Your task to perform on an android device: turn on javascript in the chrome app Image 0: 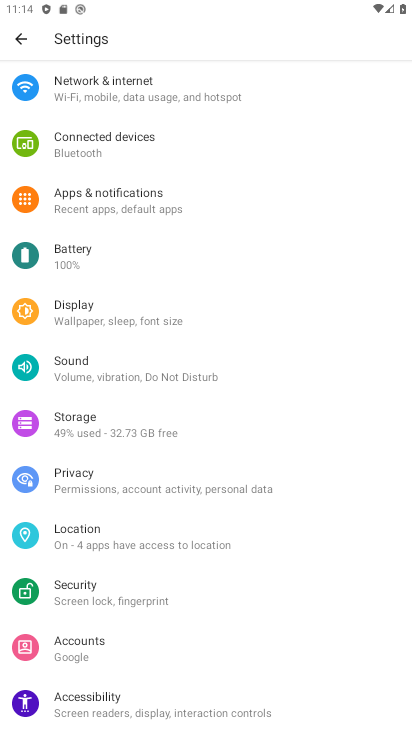
Step 0: click (278, 321)
Your task to perform on an android device: turn on javascript in the chrome app Image 1: 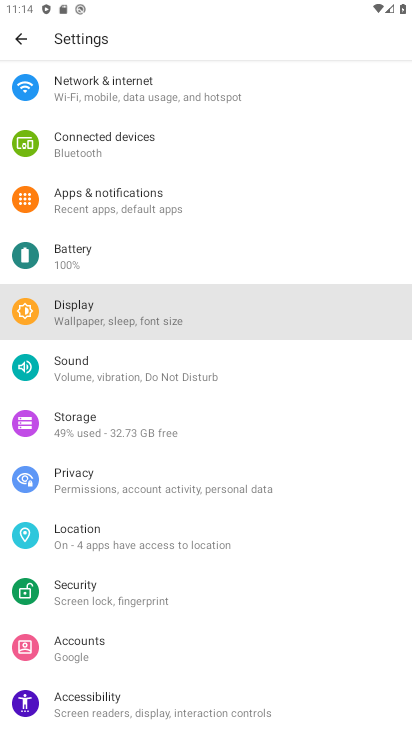
Step 1: press home button
Your task to perform on an android device: turn on javascript in the chrome app Image 2: 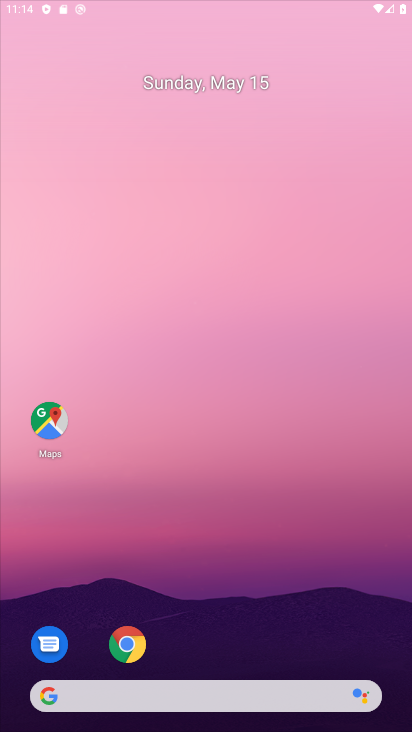
Step 2: drag from (267, 606) to (335, 208)
Your task to perform on an android device: turn on javascript in the chrome app Image 3: 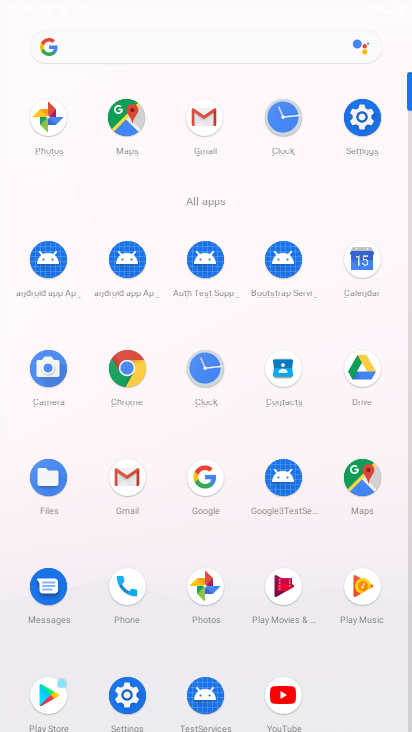
Step 3: click (125, 356)
Your task to perform on an android device: turn on javascript in the chrome app Image 4: 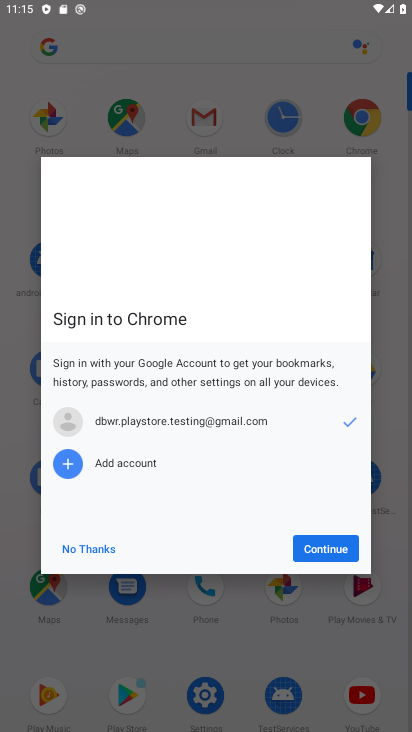
Step 4: click (319, 560)
Your task to perform on an android device: turn on javascript in the chrome app Image 5: 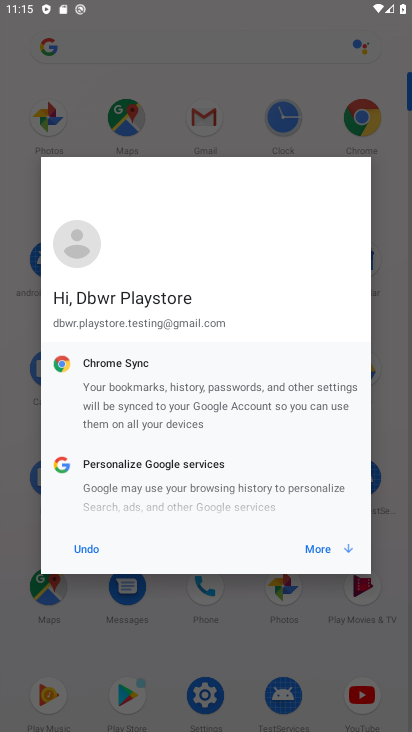
Step 5: click (351, 550)
Your task to perform on an android device: turn on javascript in the chrome app Image 6: 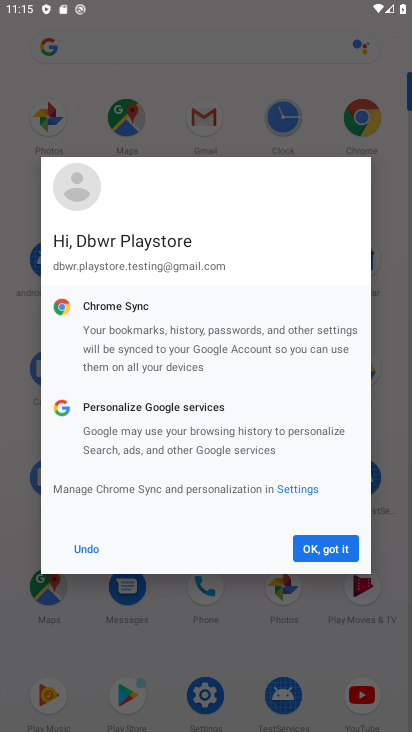
Step 6: click (328, 560)
Your task to perform on an android device: turn on javascript in the chrome app Image 7: 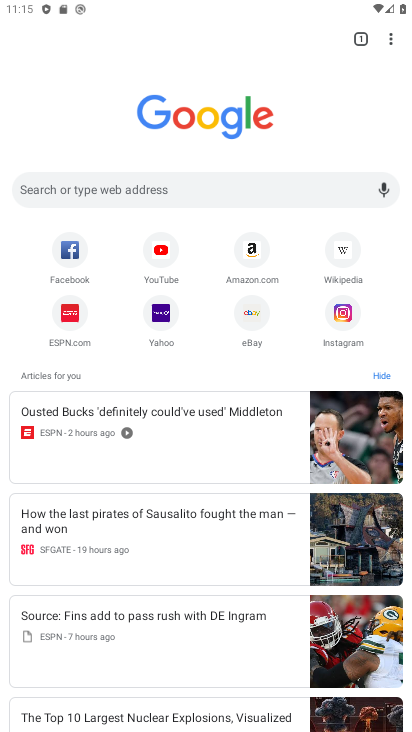
Step 7: drag from (391, 32) to (276, 330)
Your task to perform on an android device: turn on javascript in the chrome app Image 8: 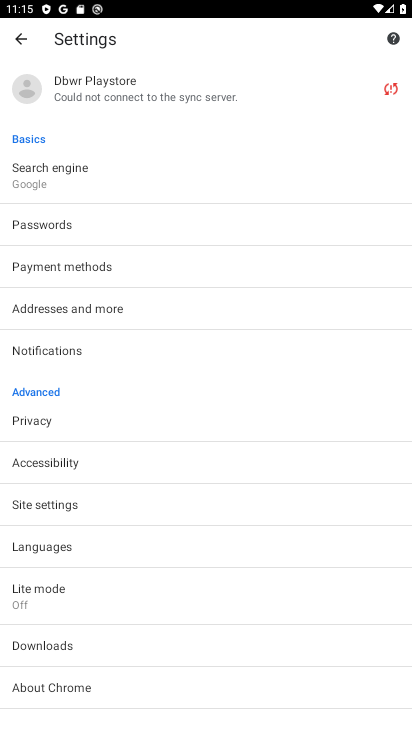
Step 8: click (99, 495)
Your task to perform on an android device: turn on javascript in the chrome app Image 9: 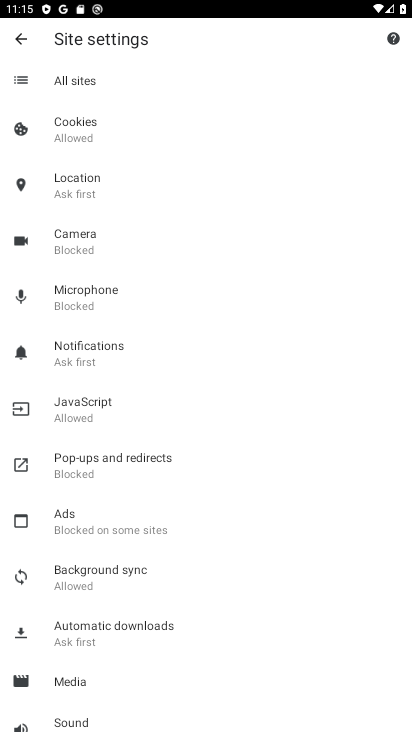
Step 9: click (94, 417)
Your task to perform on an android device: turn on javascript in the chrome app Image 10: 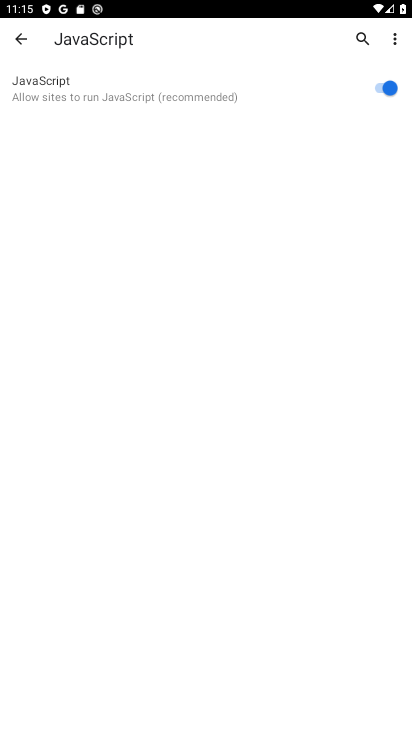
Step 10: task complete